Your task to perform on an android device: check out phone information Image 0: 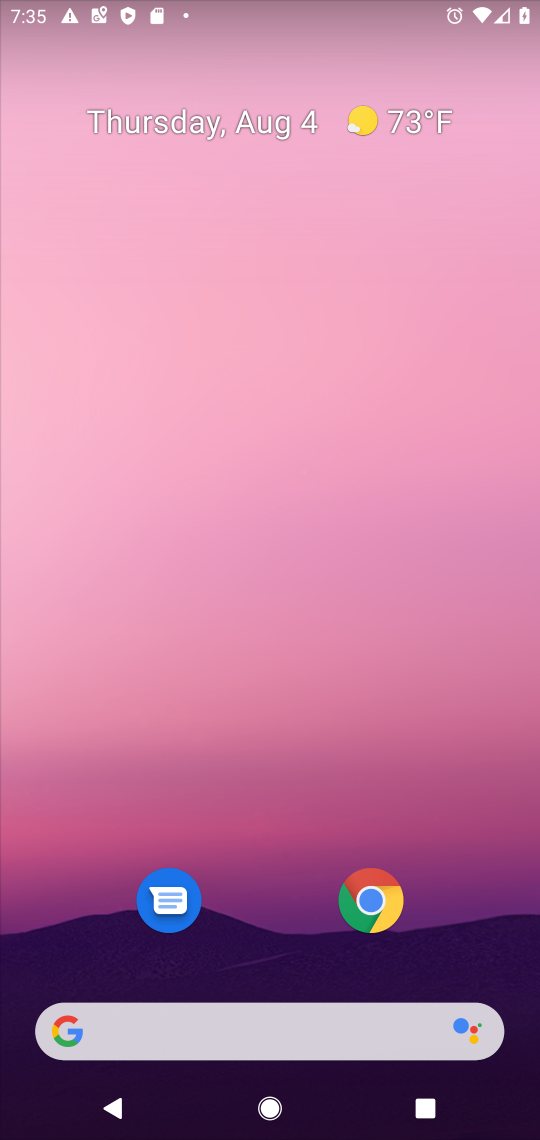
Step 0: drag from (234, 1031) to (349, 8)
Your task to perform on an android device: check out phone information Image 1: 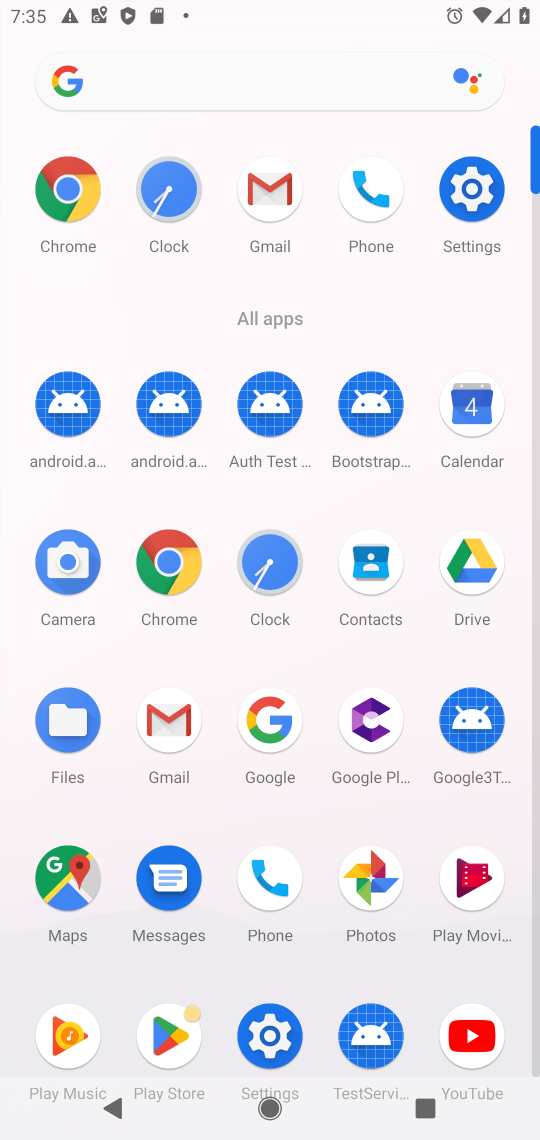
Step 1: click (470, 186)
Your task to perform on an android device: check out phone information Image 2: 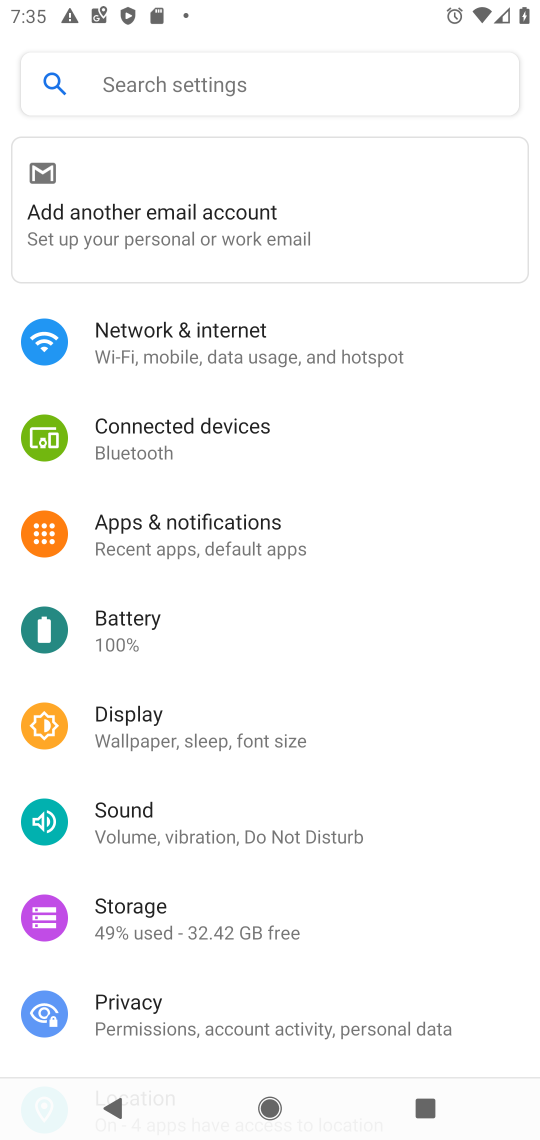
Step 2: drag from (163, 878) to (271, 630)
Your task to perform on an android device: check out phone information Image 3: 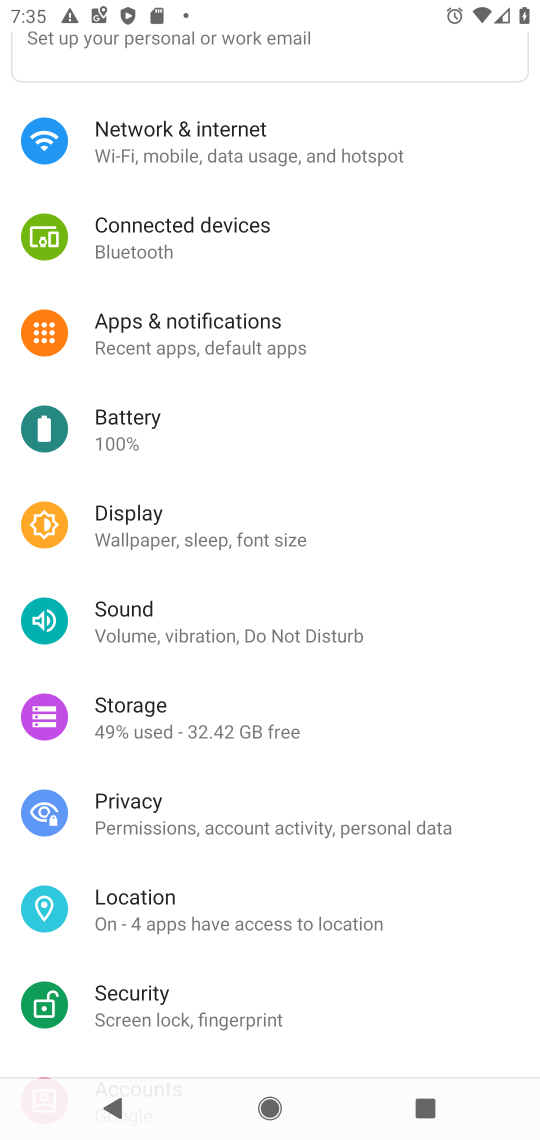
Step 3: drag from (247, 871) to (304, 715)
Your task to perform on an android device: check out phone information Image 4: 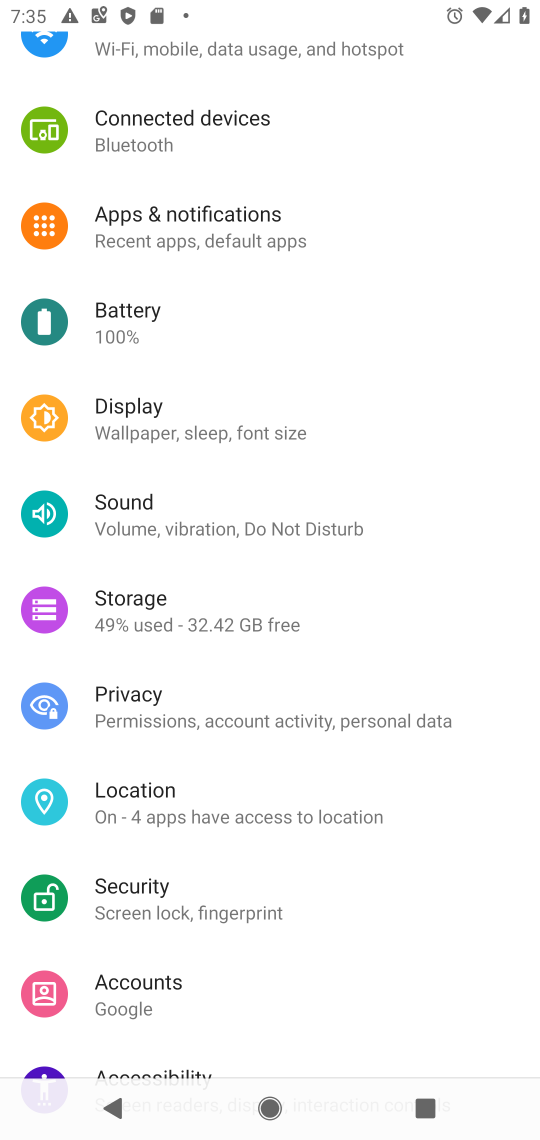
Step 4: drag from (170, 852) to (302, 671)
Your task to perform on an android device: check out phone information Image 5: 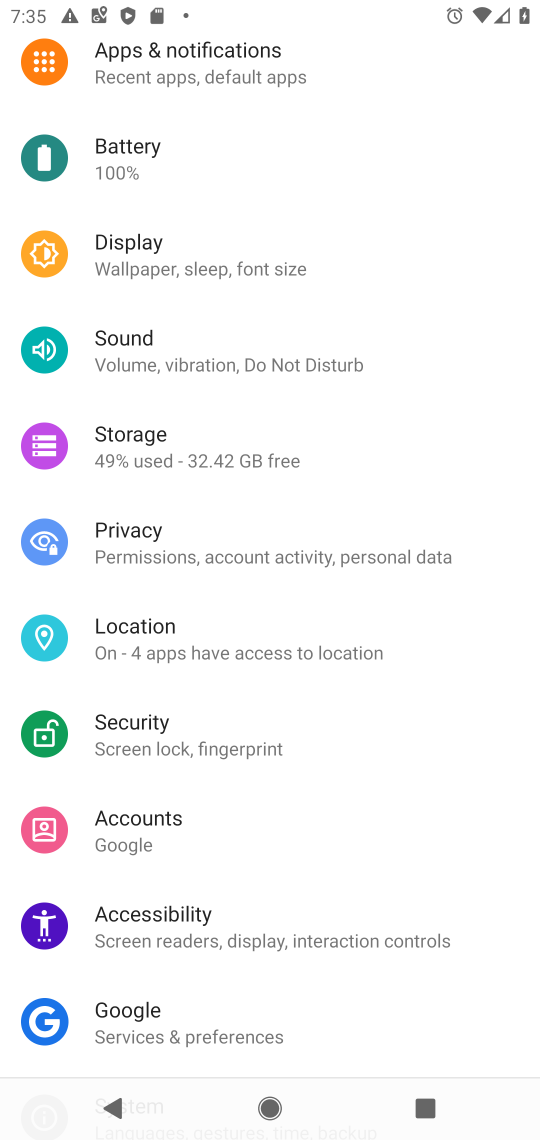
Step 5: drag from (178, 858) to (289, 711)
Your task to perform on an android device: check out phone information Image 6: 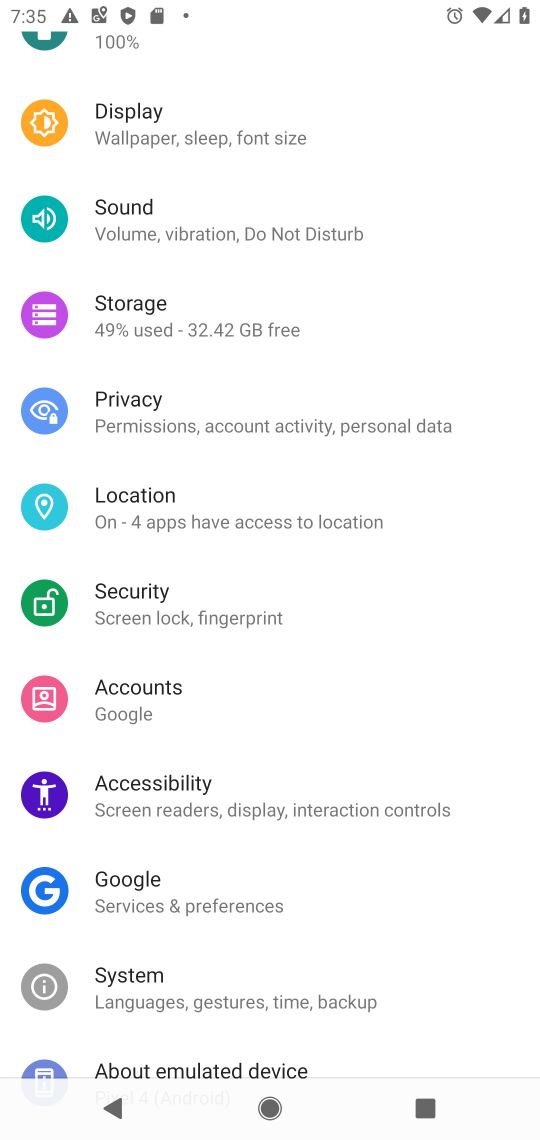
Step 6: drag from (198, 856) to (292, 696)
Your task to perform on an android device: check out phone information Image 7: 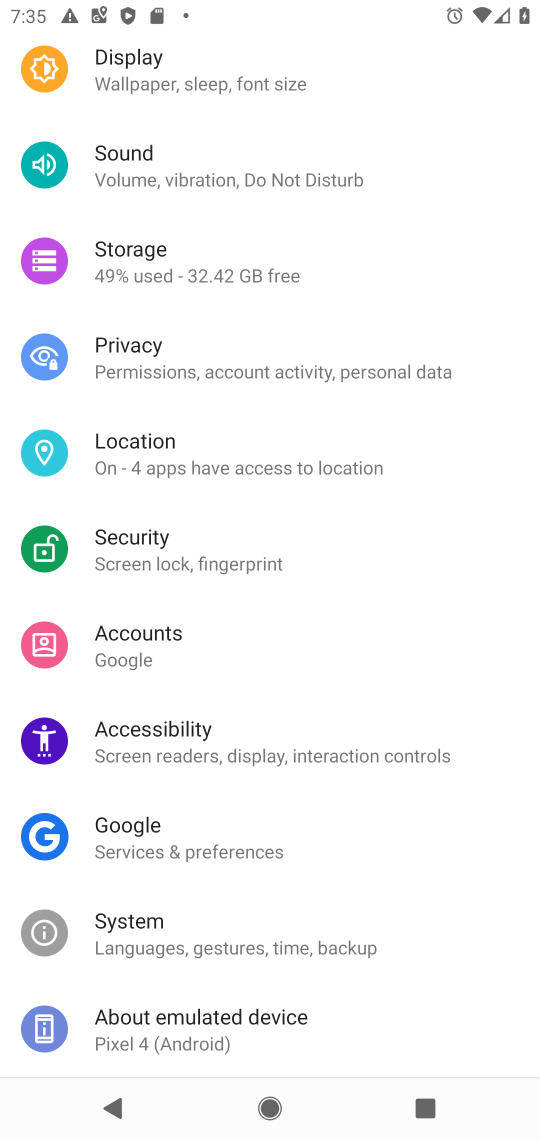
Step 7: click (179, 1016)
Your task to perform on an android device: check out phone information Image 8: 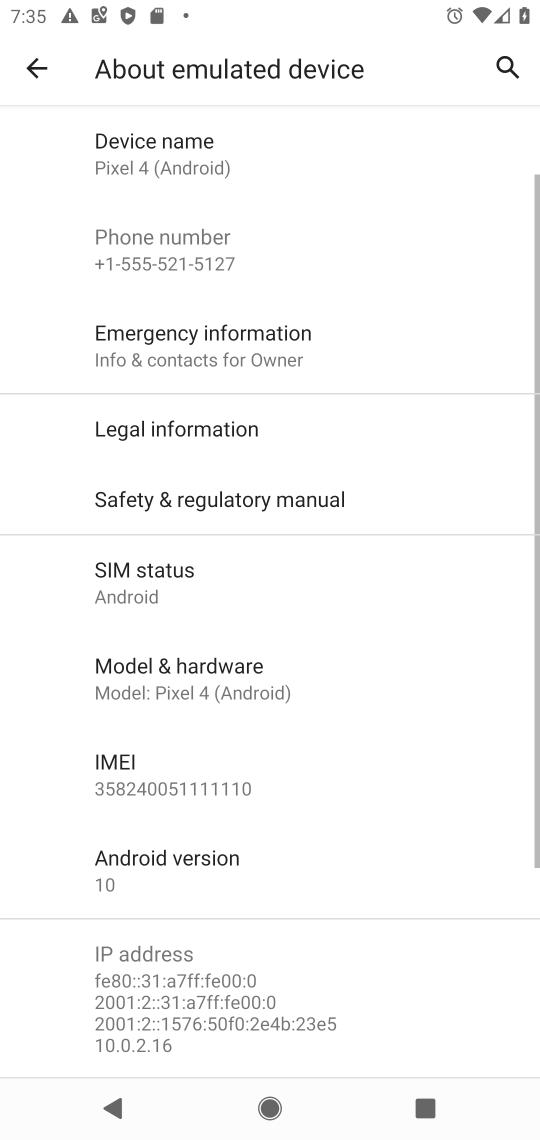
Step 8: task complete